Your task to perform on an android device: Search for flights from Buenos aires to Seoul Image 0: 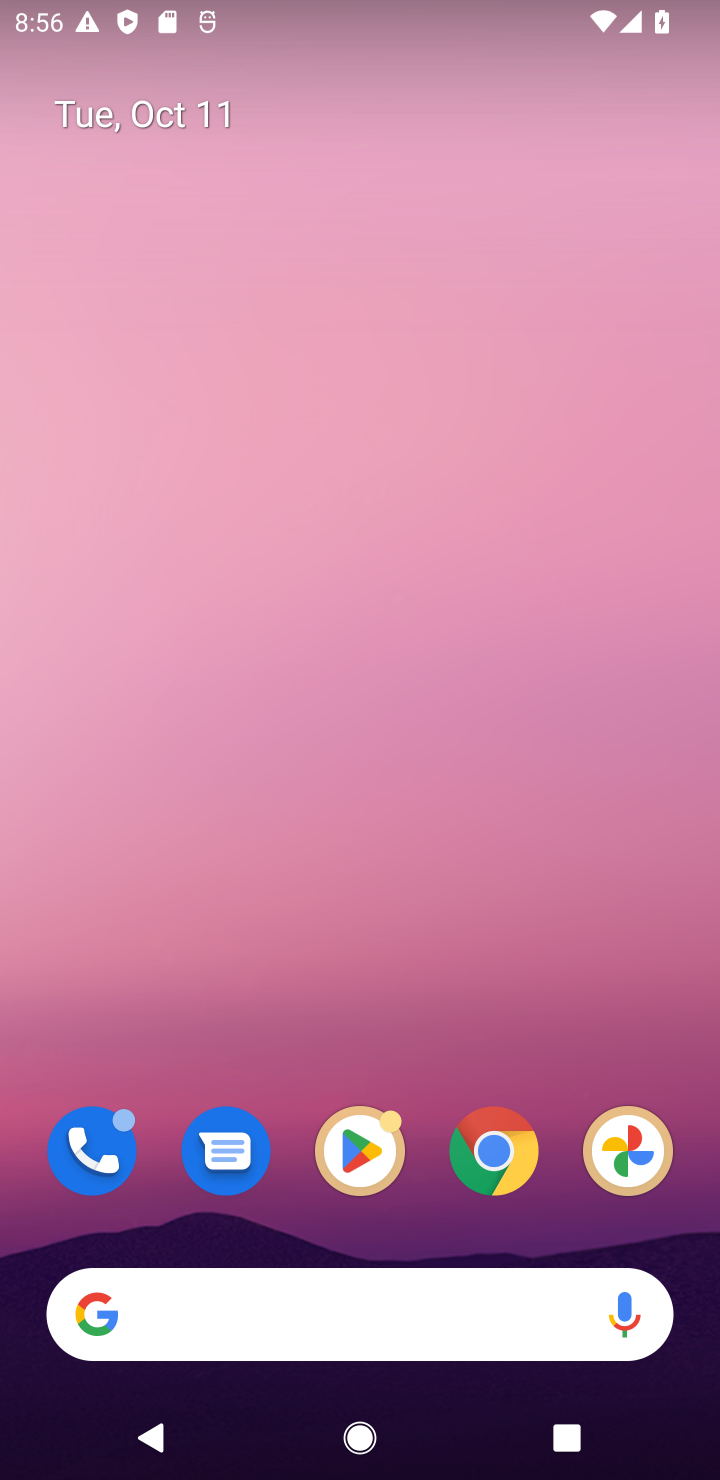
Step 0: click (486, 1139)
Your task to perform on an android device: Search for flights from Buenos aires to Seoul Image 1: 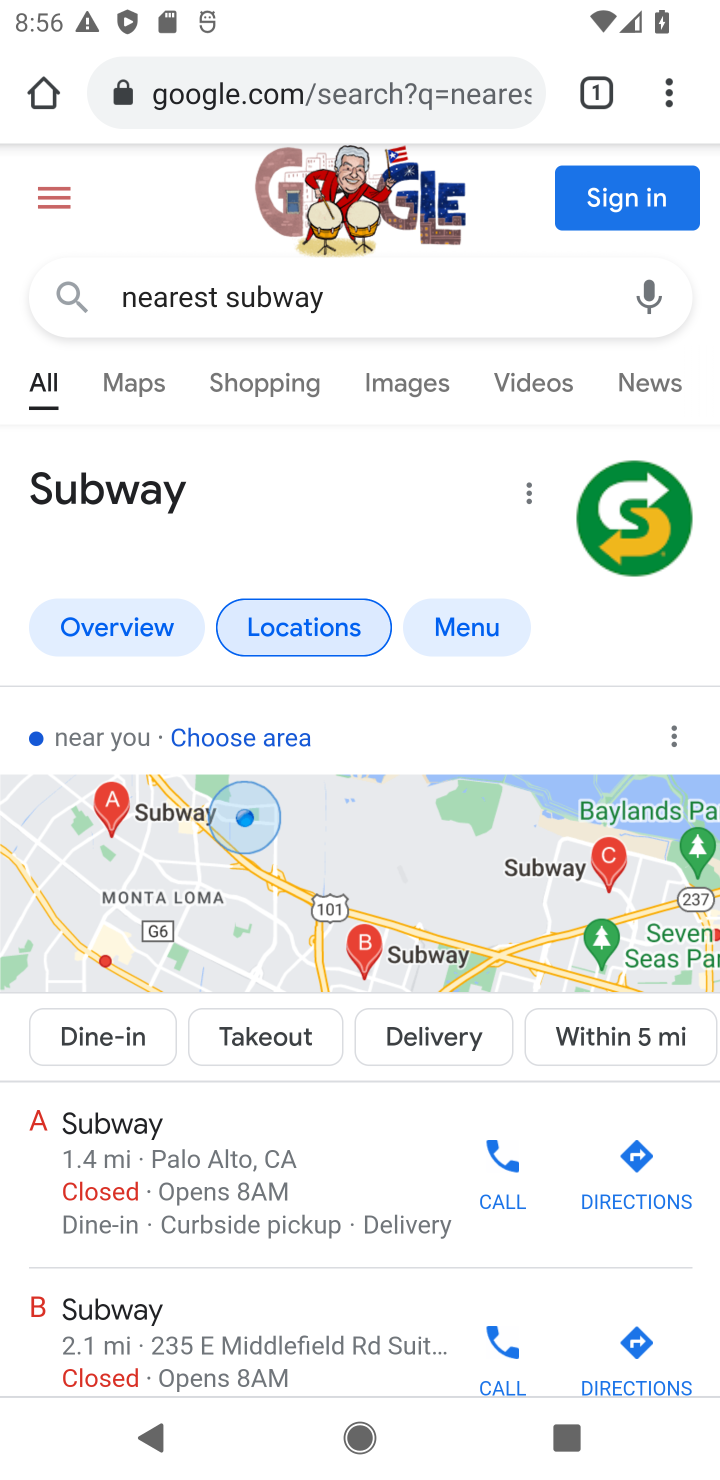
Step 1: click (331, 104)
Your task to perform on an android device: Search for flights from Buenos aires to Seoul Image 2: 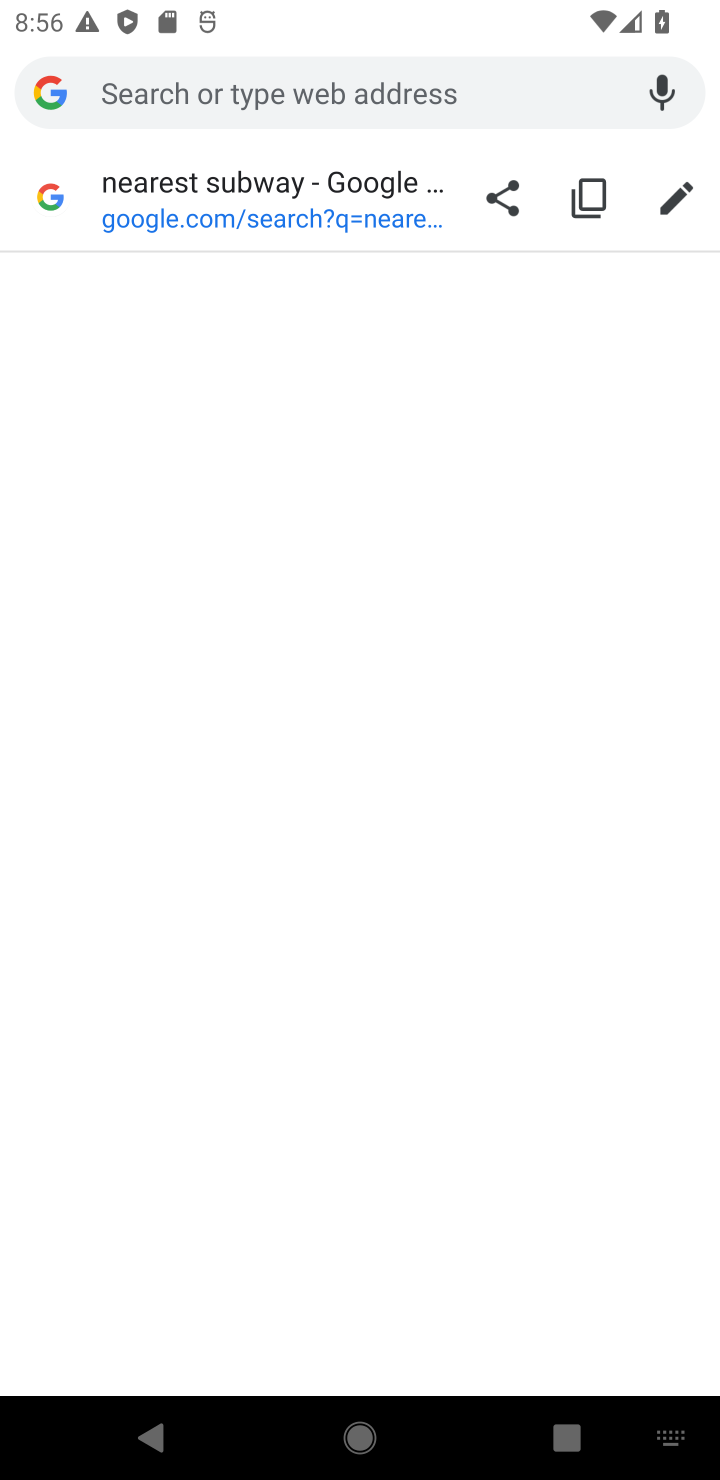
Step 2: type "buenos aires to seoul flights"
Your task to perform on an android device: Search for flights from Buenos aires to Seoul Image 3: 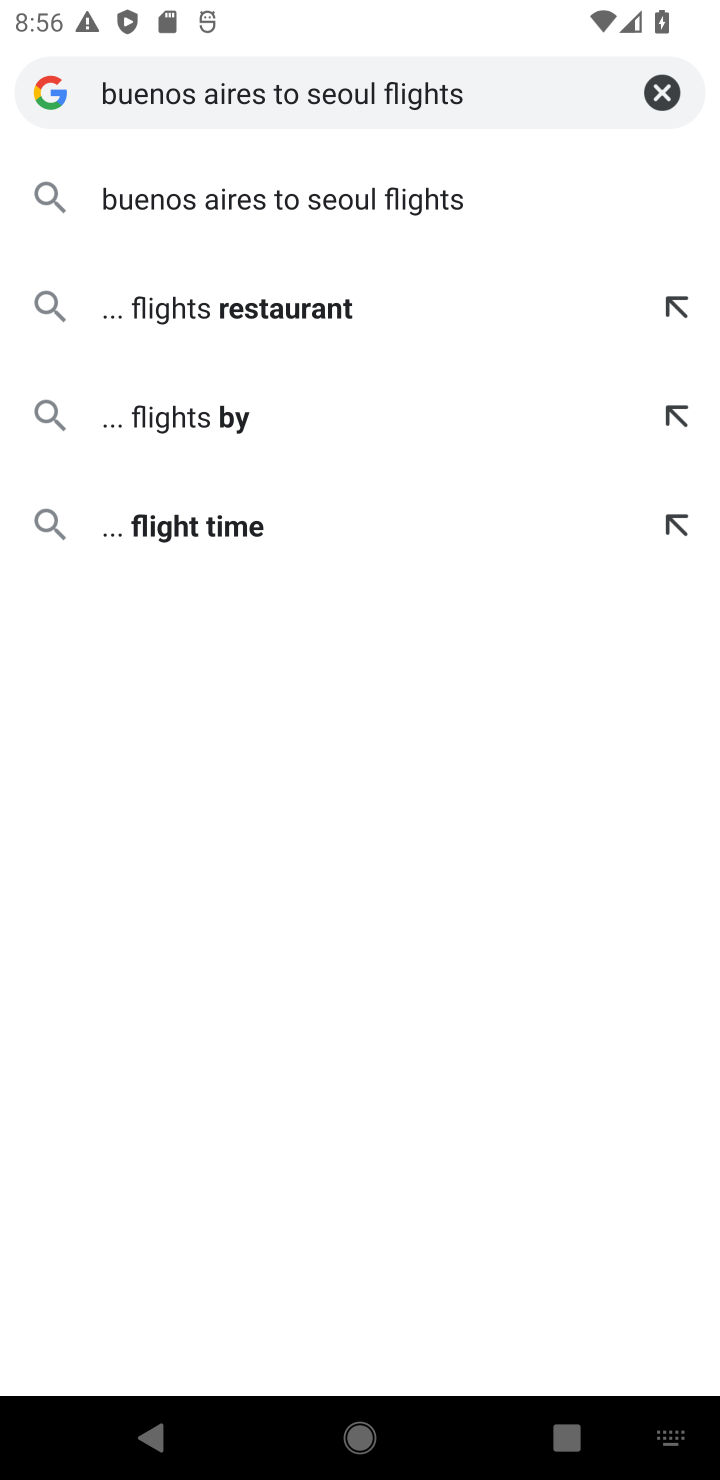
Step 3: click (397, 209)
Your task to perform on an android device: Search for flights from Buenos aires to Seoul Image 4: 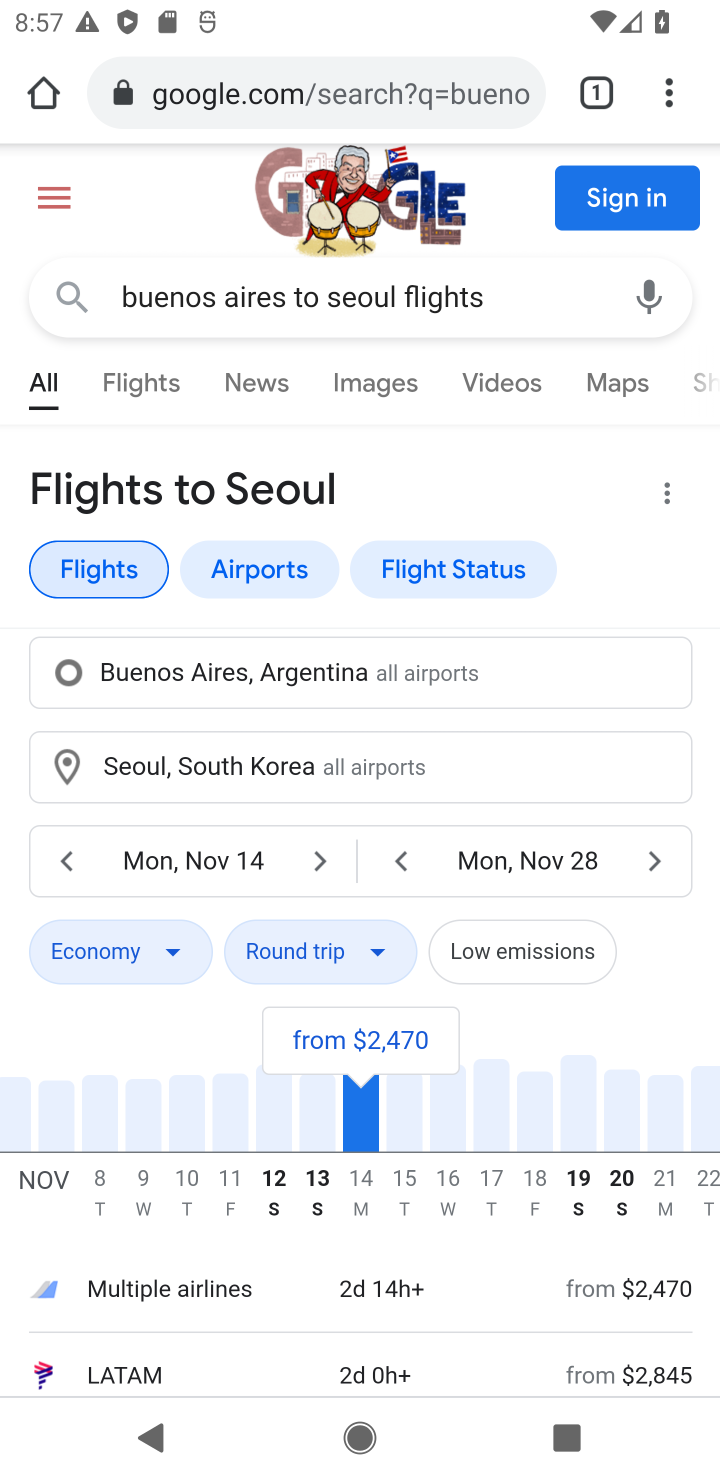
Step 4: task complete